Your task to perform on an android device: Open battery settings Image 0: 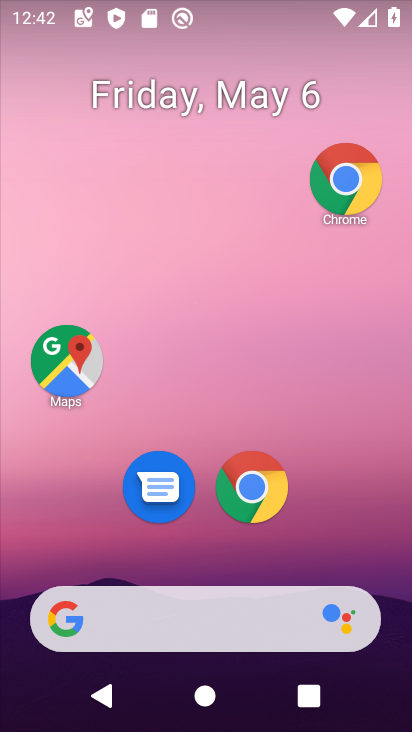
Step 0: drag from (335, 568) to (332, 285)
Your task to perform on an android device: Open battery settings Image 1: 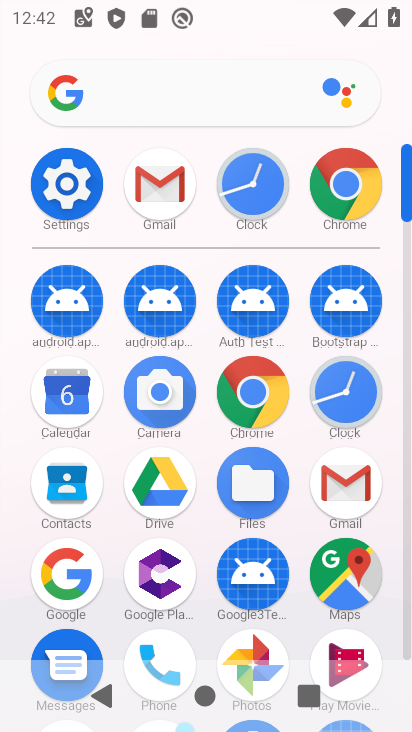
Step 1: click (58, 197)
Your task to perform on an android device: Open battery settings Image 2: 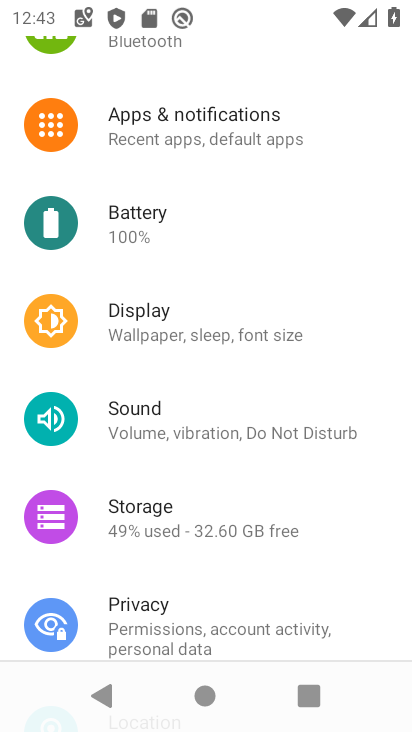
Step 2: click (162, 214)
Your task to perform on an android device: Open battery settings Image 3: 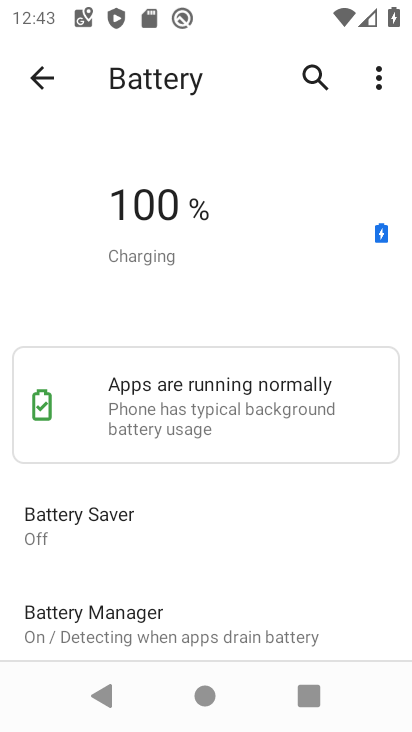
Step 3: task complete